Your task to perform on an android device: toggle notification dots Image 0: 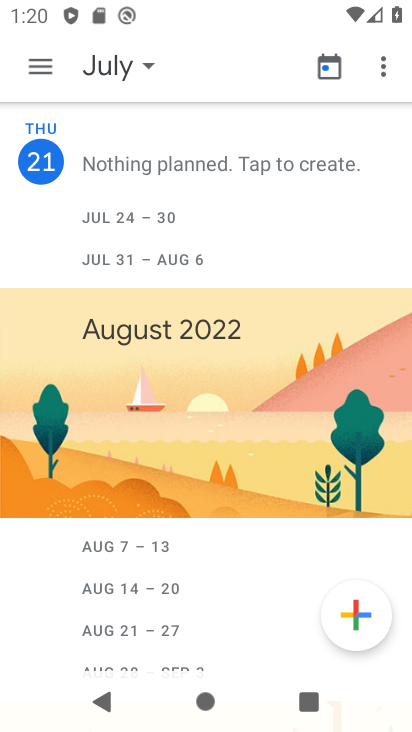
Step 0: press home button
Your task to perform on an android device: toggle notification dots Image 1: 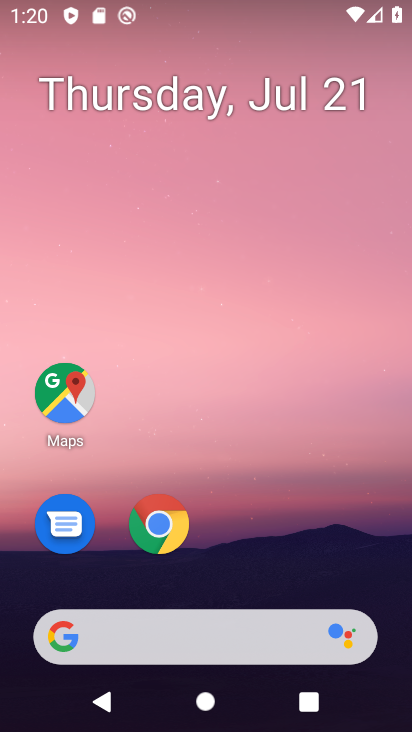
Step 1: drag from (284, 551) to (289, 0)
Your task to perform on an android device: toggle notification dots Image 2: 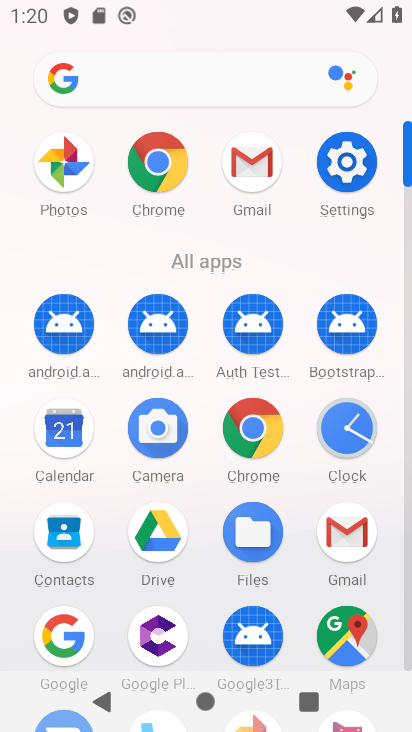
Step 2: click (353, 171)
Your task to perform on an android device: toggle notification dots Image 3: 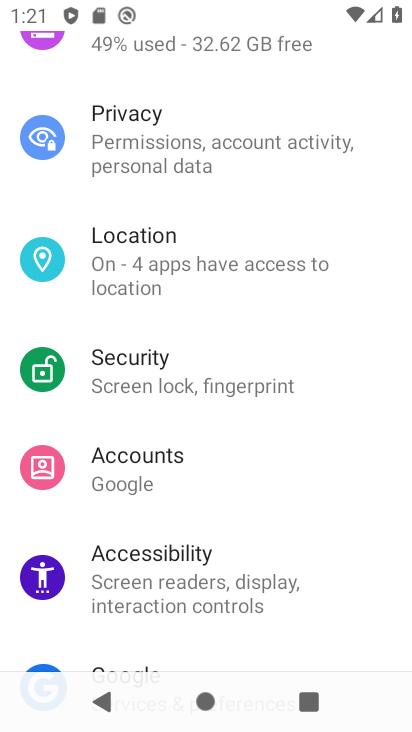
Step 3: drag from (237, 216) to (240, 578)
Your task to perform on an android device: toggle notification dots Image 4: 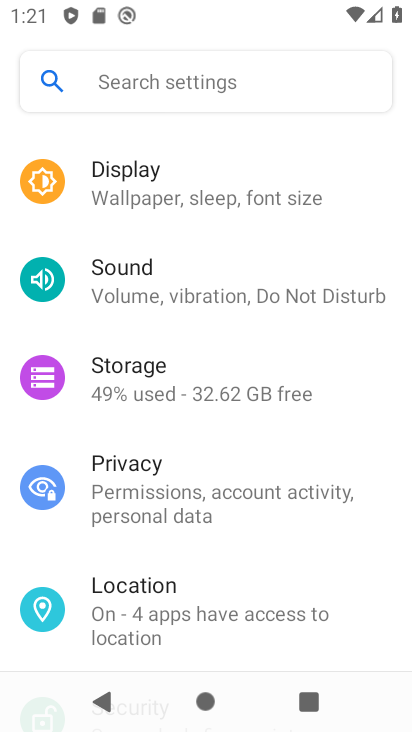
Step 4: drag from (235, 237) to (244, 568)
Your task to perform on an android device: toggle notification dots Image 5: 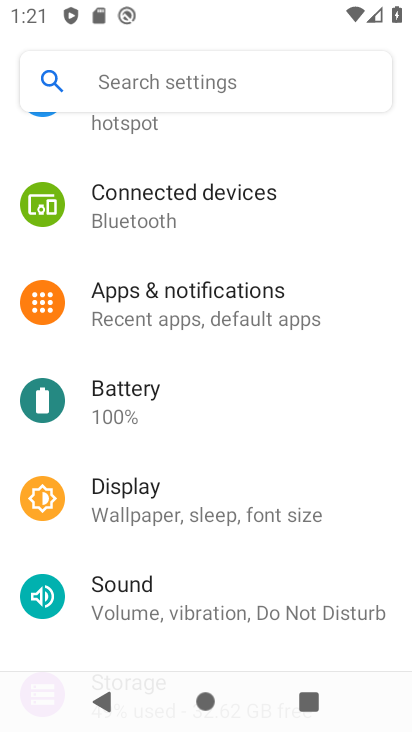
Step 5: click (239, 301)
Your task to perform on an android device: toggle notification dots Image 6: 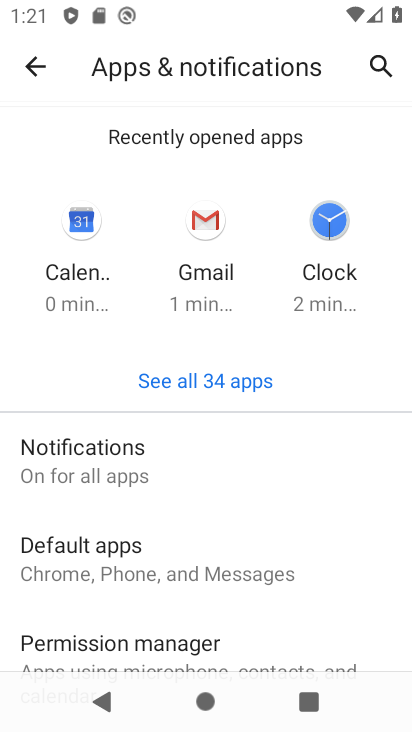
Step 6: drag from (204, 498) to (240, 193)
Your task to perform on an android device: toggle notification dots Image 7: 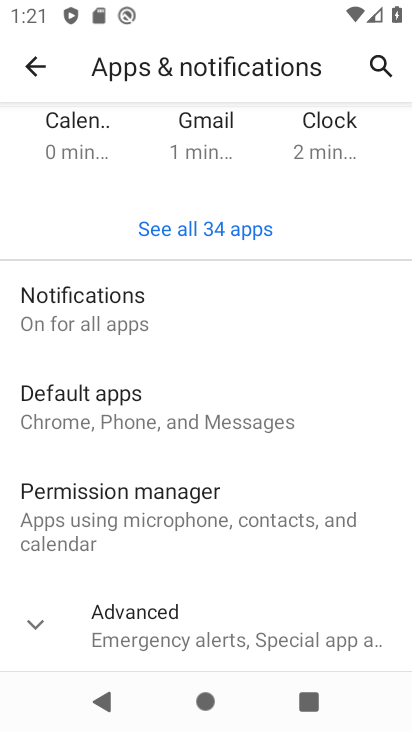
Step 7: click (41, 621)
Your task to perform on an android device: toggle notification dots Image 8: 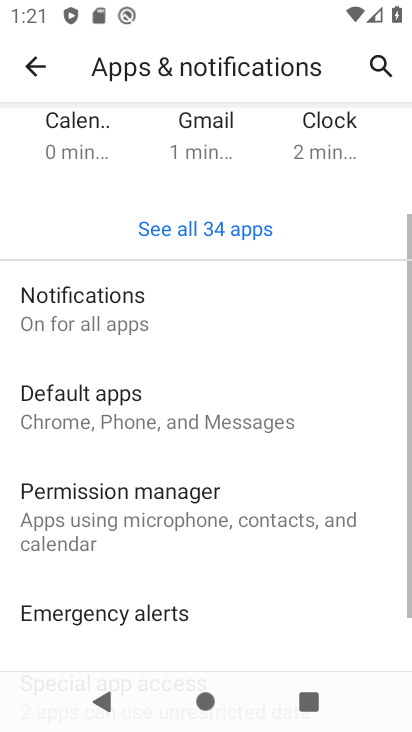
Step 8: drag from (219, 543) to (272, 167)
Your task to perform on an android device: toggle notification dots Image 9: 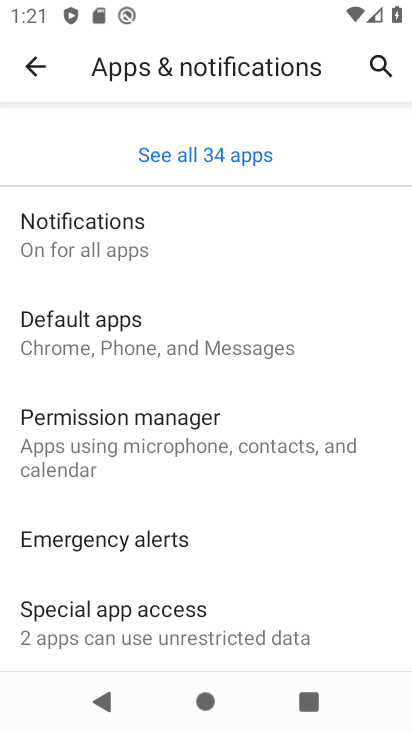
Step 9: click (119, 234)
Your task to perform on an android device: toggle notification dots Image 10: 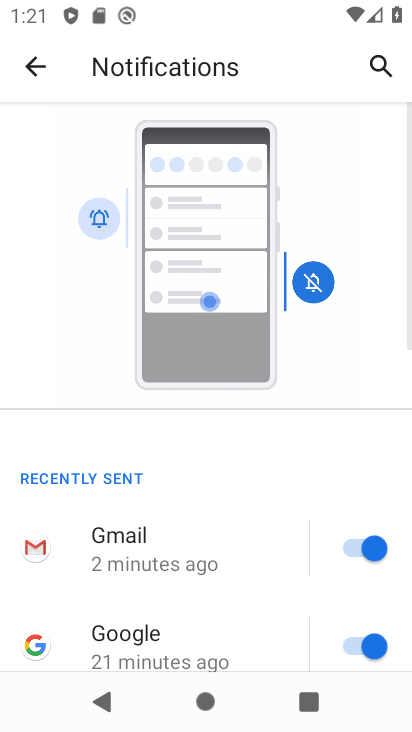
Step 10: drag from (123, 612) to (218, 23)
Your task to perform on an android device: toggle notification dots Image 11: 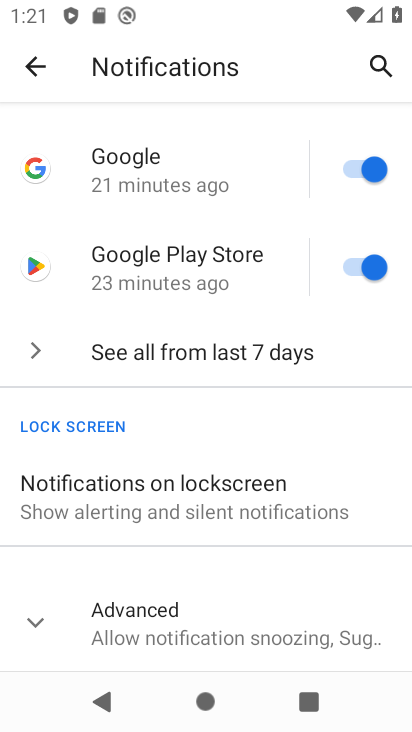
Step 11: click (34, 618)
Your task to perform on an android device: toggle notification dots Image 12: 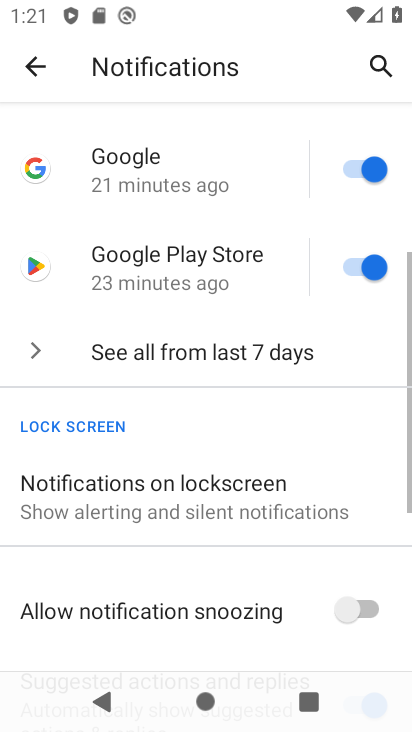
Step 12: drag from (193, 637) to (245, 226)
Your task to perform on an android device: toggle notification dots Image 13: 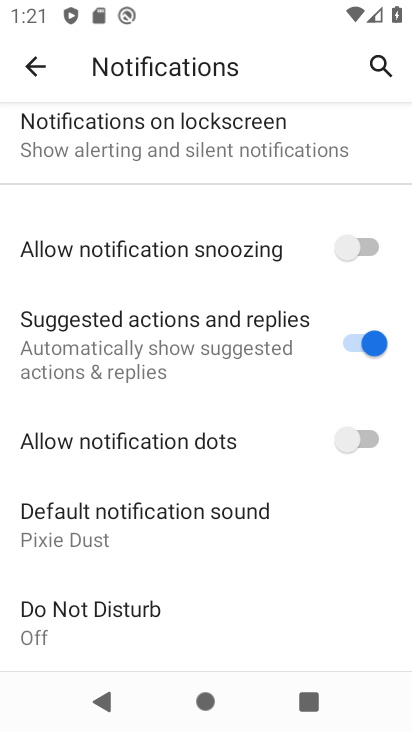
Step 13: click (374, 431)
Your task to perform on an android device: toggle notification dots Image 14: 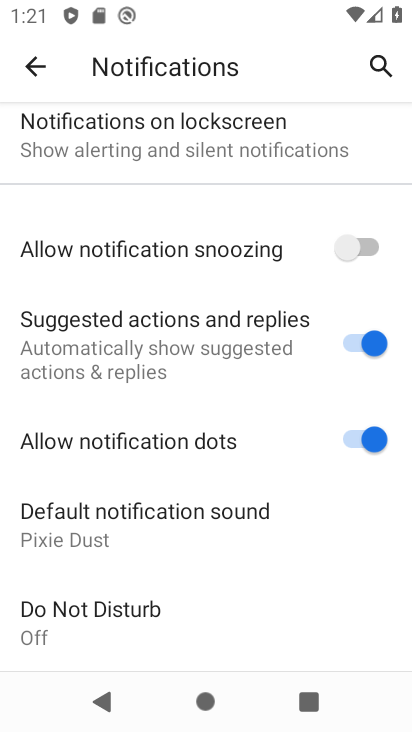
Step 14: task complete